Your task to perform on an android device: Open my contact list Image 0: 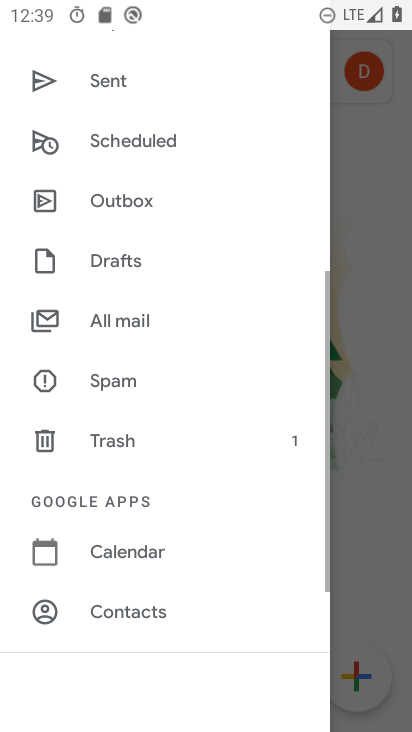
Step 0: drag from (200, 666) to (266, 98)
Your task to perform on an android device: Open my contact list Image 1: 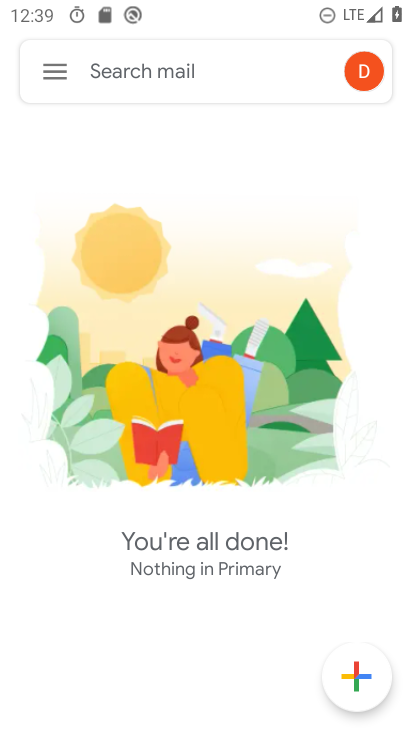
Step 1: press home button
Your task to perform on an android device: Open my contact list Image 2: 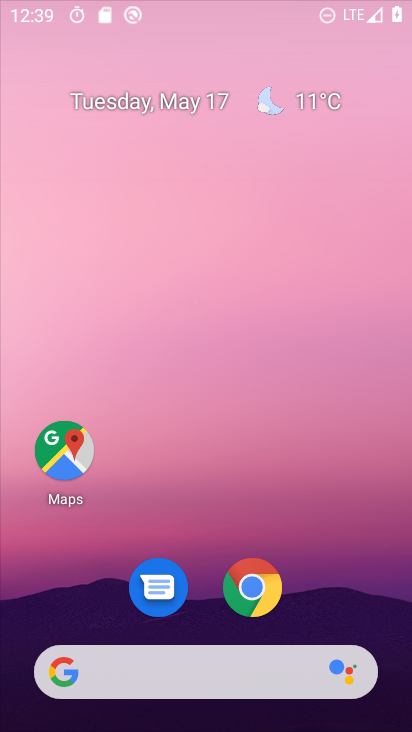
Step 2: drag from (180, 612) to (247, 140)
Your task to perform on an android device: Open my contact list Image 3: 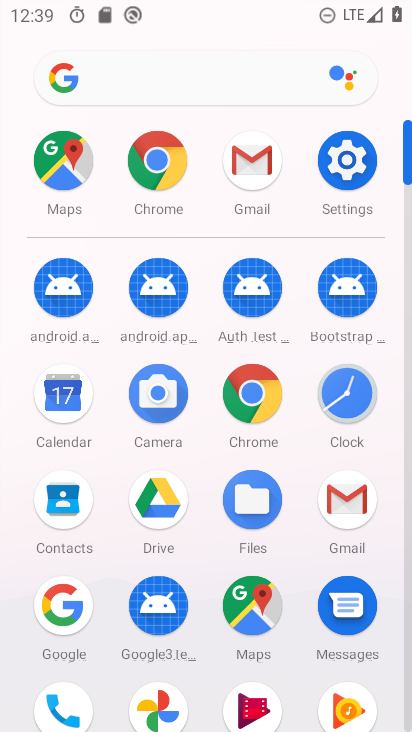
Step 3: click (49, 397)
Your task to perform on an android device: Open my contact list Image 4: 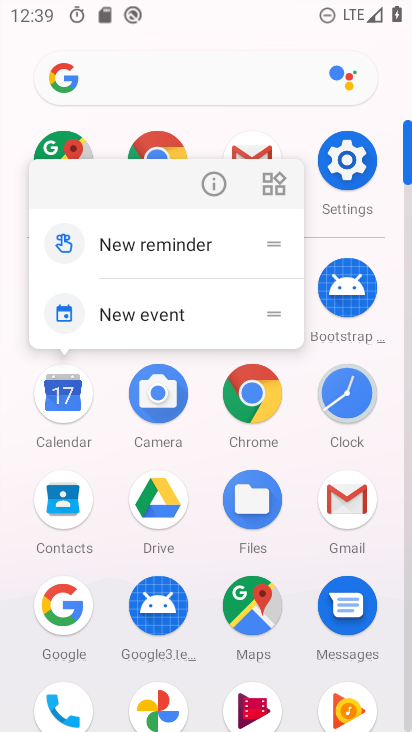
Step 4: click (65, 486)
Your task to perform on an android device: Open my contact list Image 5: 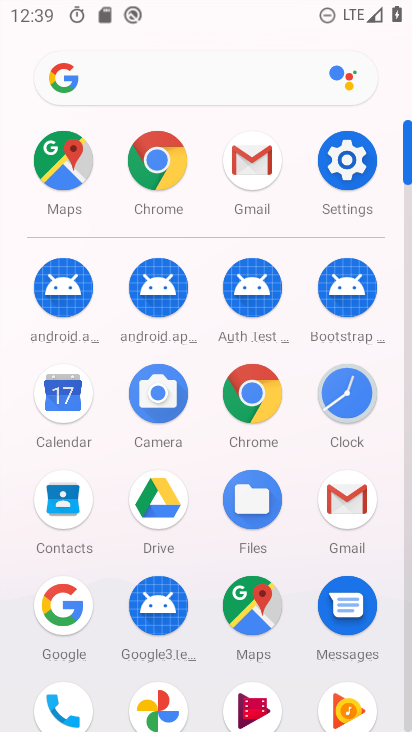
Step 5: click (64, 485)
Your task to perform on an android device: Open my contact list Image 6: 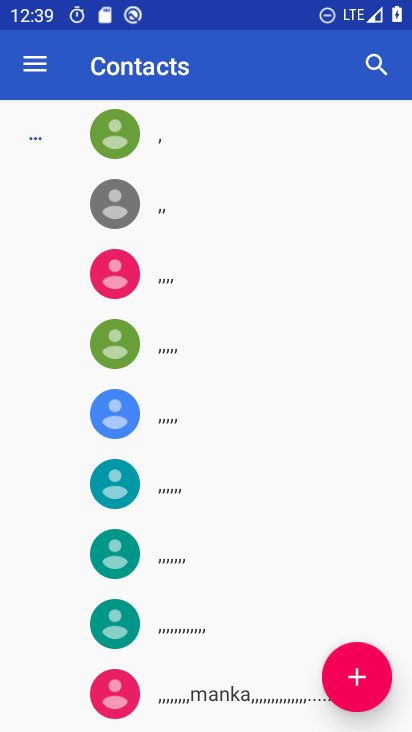
Step 6: task complete